Your task to perform on an android device: turn off location Image 0: 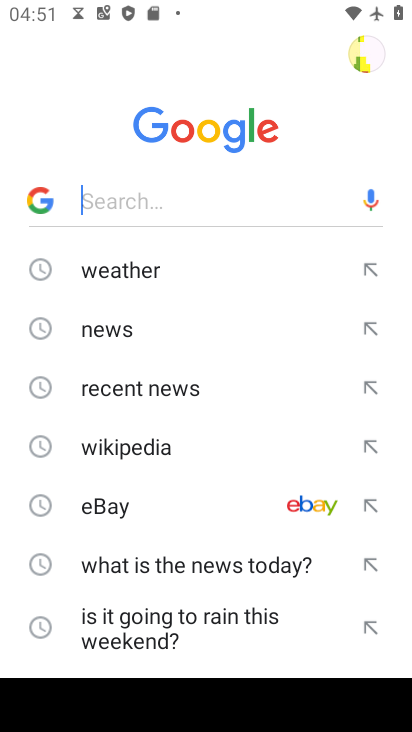
Step 0: press back button
Your task to perform on an android device: turn off location Image 1: 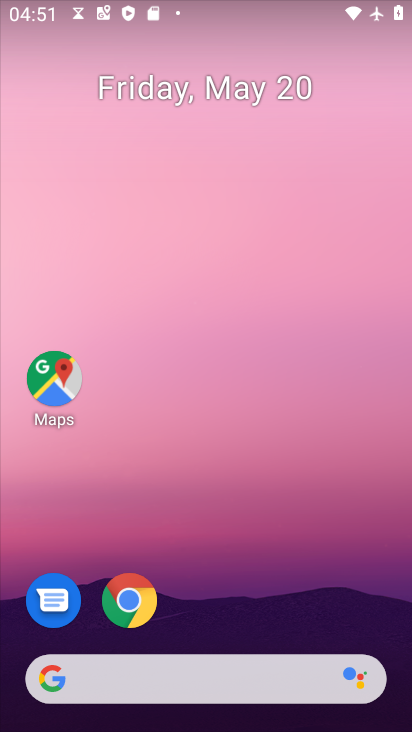
Step 1: drag from (285, 560) to (258, 75)
Your task to perform on an android device: turn off location Image 2: 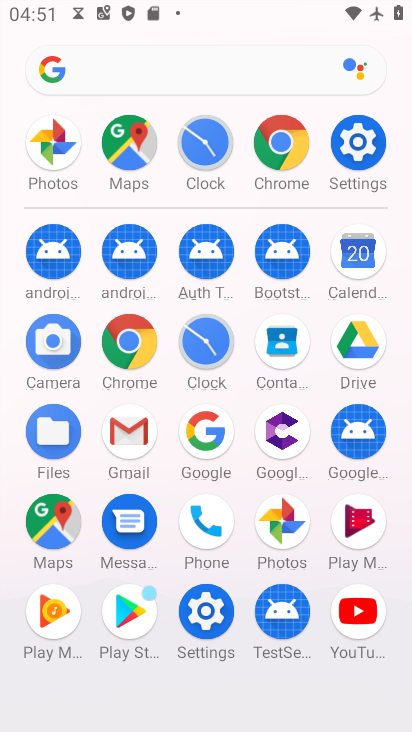
Step 2: drag from (23, 597) to (21, 263)
Your task to perform on an android device: turn off location Image 3: 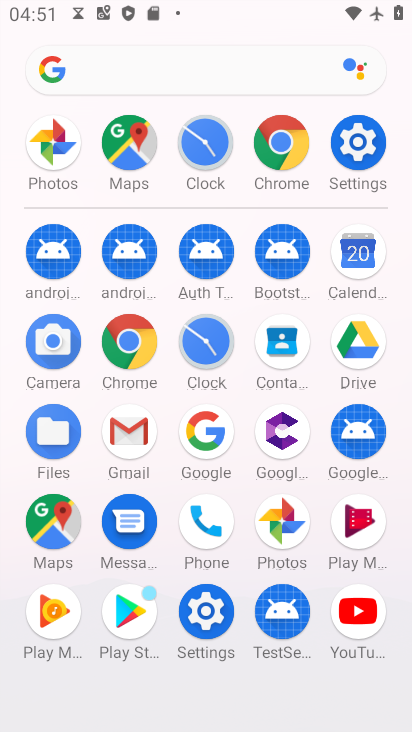
Step 3: click (211, 606)
Your task to perform on an android device: turn off location Image 4: 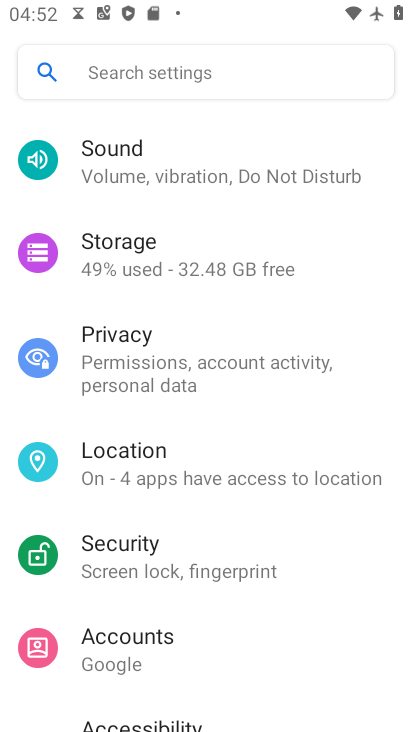
Step 4: click (174, 439)
Your task to perform on an android device: turn off location Image 5: 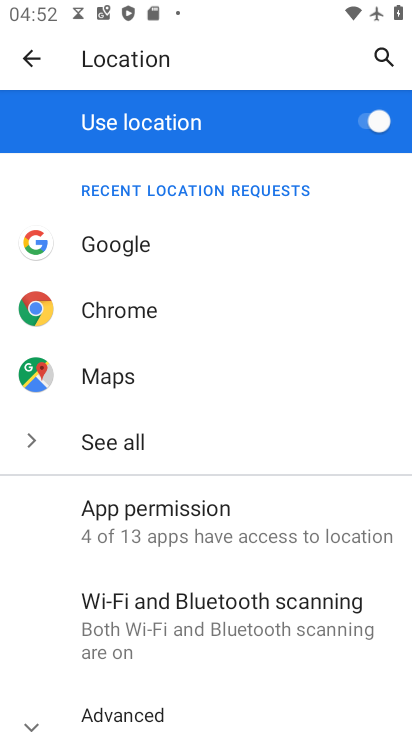
Step 5: click (356, 116)
Your task to perform on an android device: turn off location Image 6: 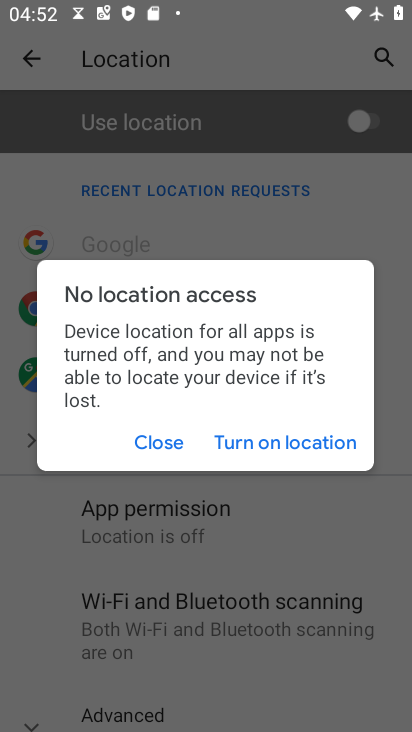
Step 6: click (171, 441)
Your task to perform on an android device: turn off location Image 7: 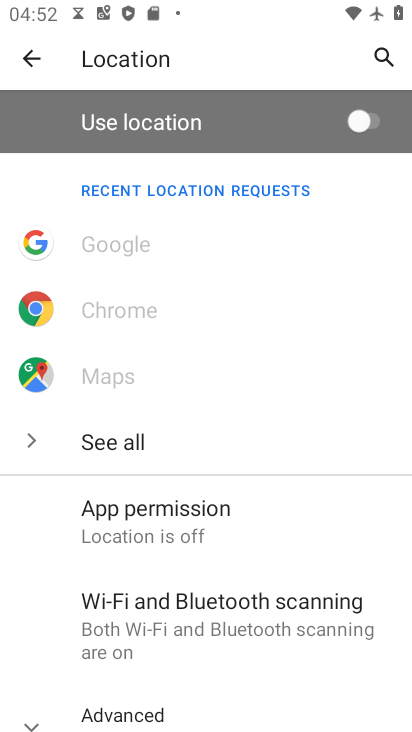
Step 7: task complete